Your task to perform on an android device: change your default location settings in chrome Image 0: 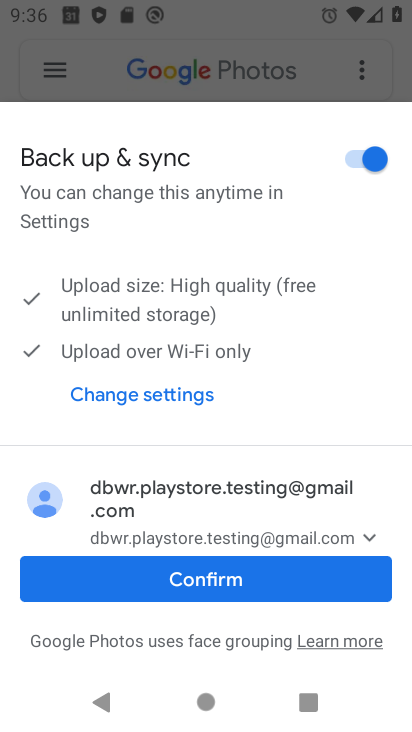
Step 0: press home button
Your task to perform on an android device: change your default location settings in chrome Image 1: 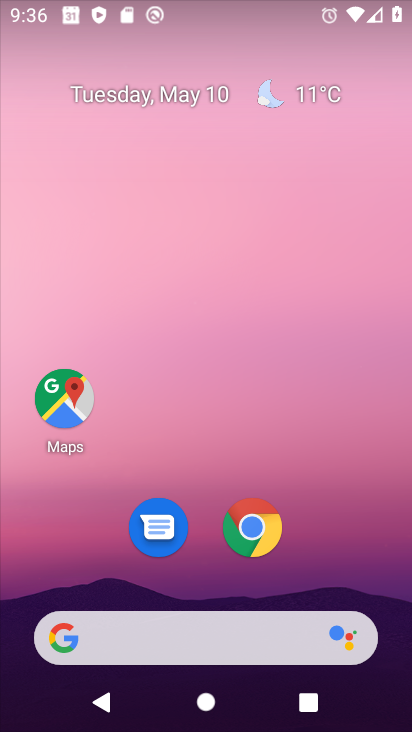
Step 1: click (260, 533)
Your task to perform on an android device: change your default location settings in chrome Image 2: 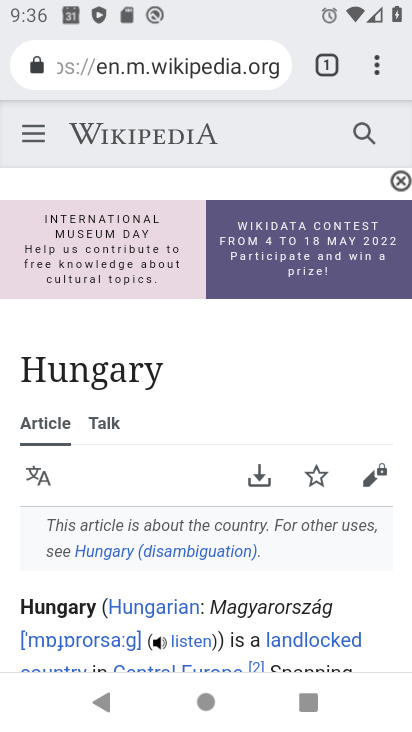
Step 2: click (382, 75)
Your task to perform on an android device: change your default location settings in chrome Image 3: 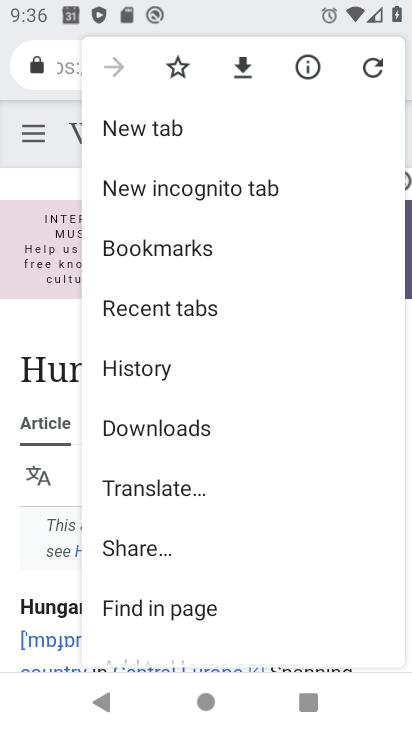
Step 3: drag from (215, 510) to (199, 286)
Your task to perform on an android device: change your default location settings in chrome Image 4: 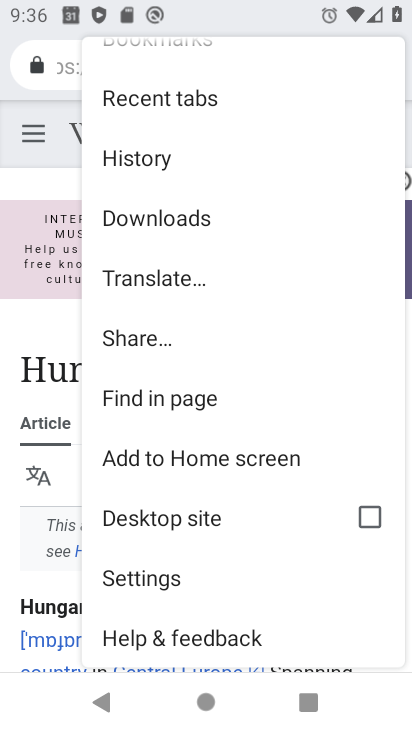
Step 4: click (215, 578)
Your task to perform on an android device: change your default location settings in chrome Image 5: 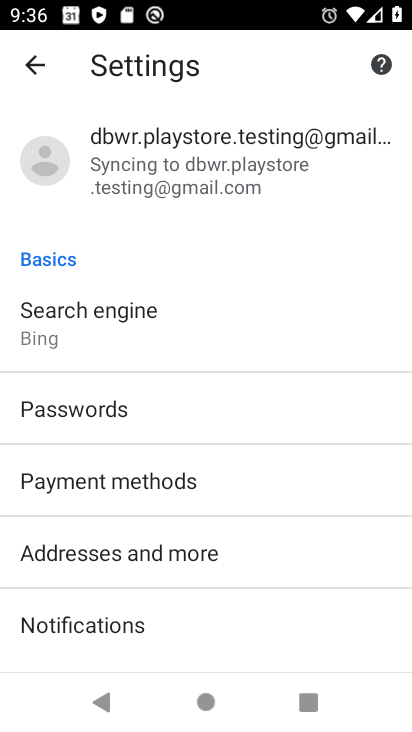
Step 5: drag from (198, 581) to (179, 192)
Your task to perform on an android device: change your default location settings in chrome Image 6: 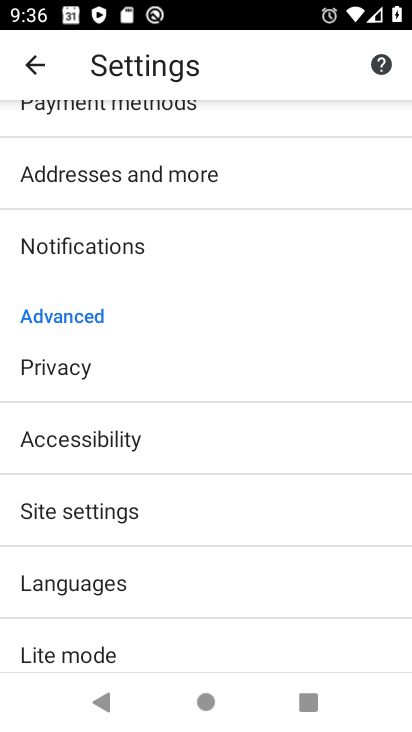
Step 6: click (183, 510)
Your task to perform on an android device: change your default location settings in chrome Image 7: 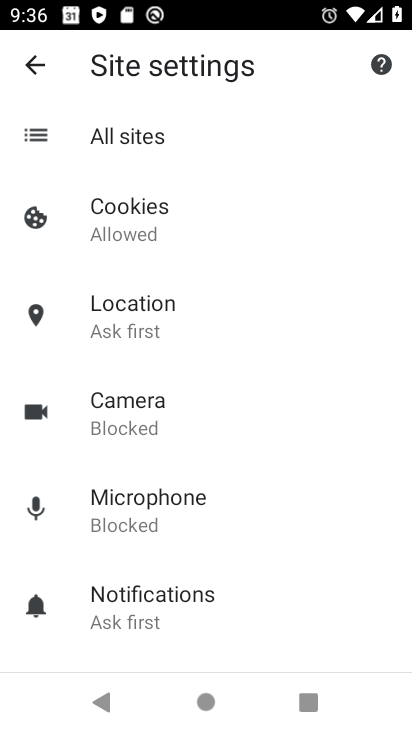
Step 7: click (148, 328)
Your task to perform on an android device: change your default location settings in chrome Image 8: 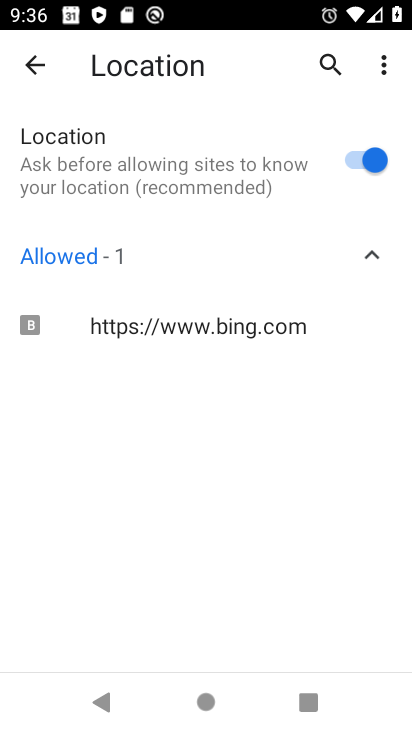
Step 8: click (351, 156)
Your task to perform on an android device: change your default location settings in chrome Image 9: 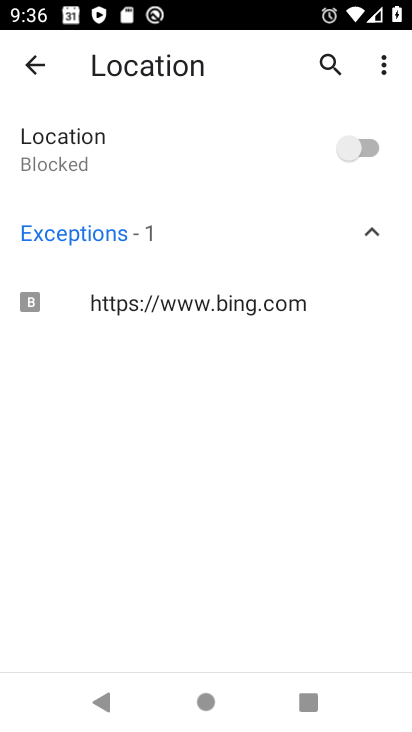
Step 9: task complete